Your task to perform on an android device: Search for sushi restaurants on Maps Image 0: 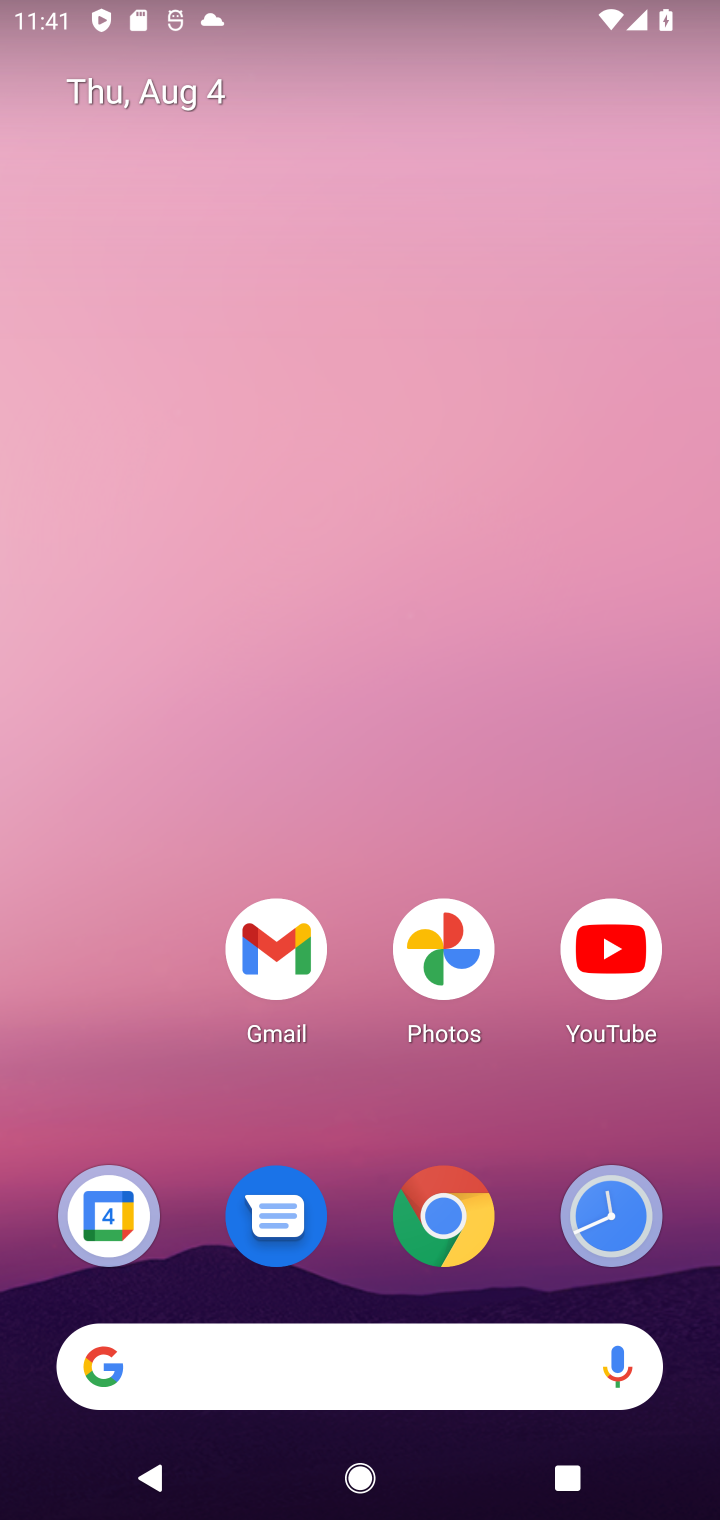
Step 0: drag from (312, 1365) to (366, 363)
Your task to perform on an android device: Search for sushi restaurants on Maps Image 1: 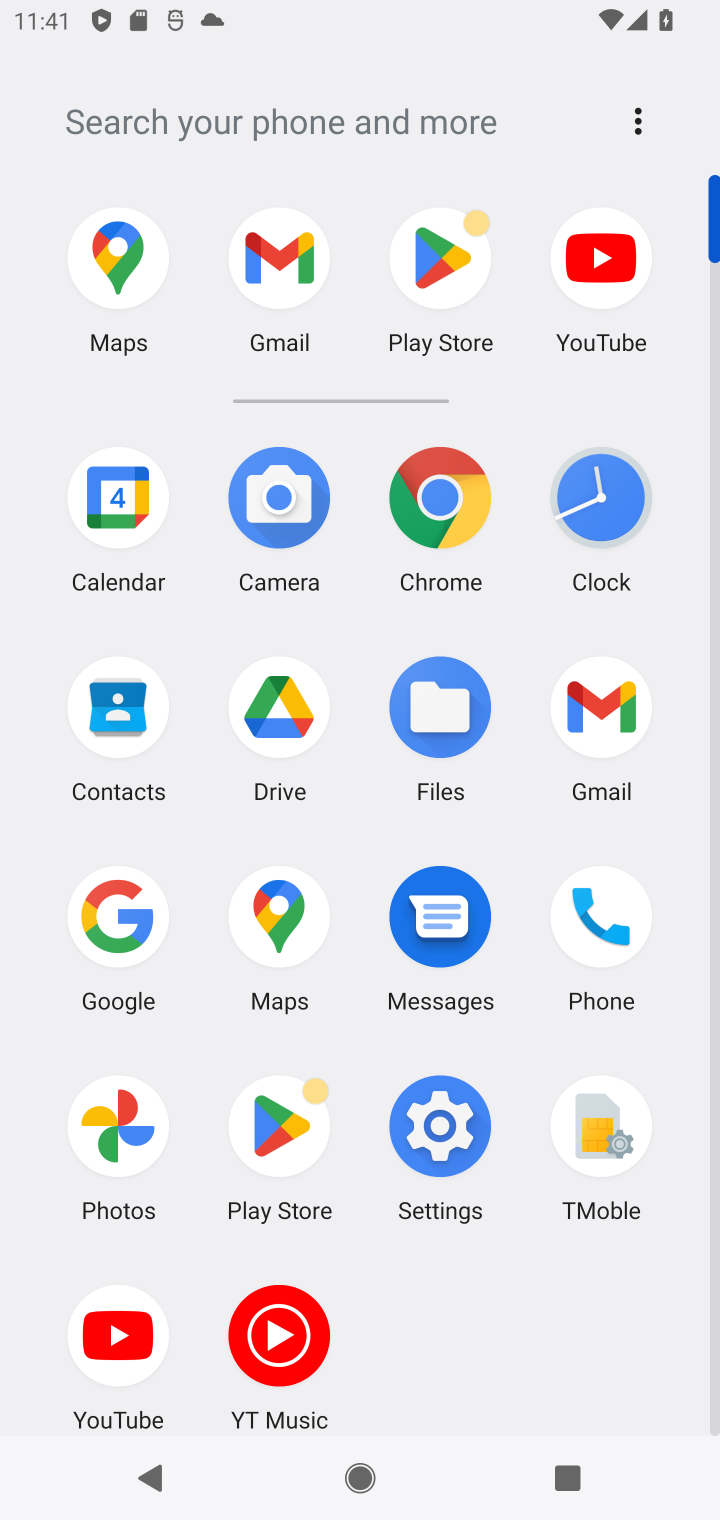
Step 1: click (279, 907)
Your task to perform on an android device: Search for sushi restaurants on Maps Image 2: 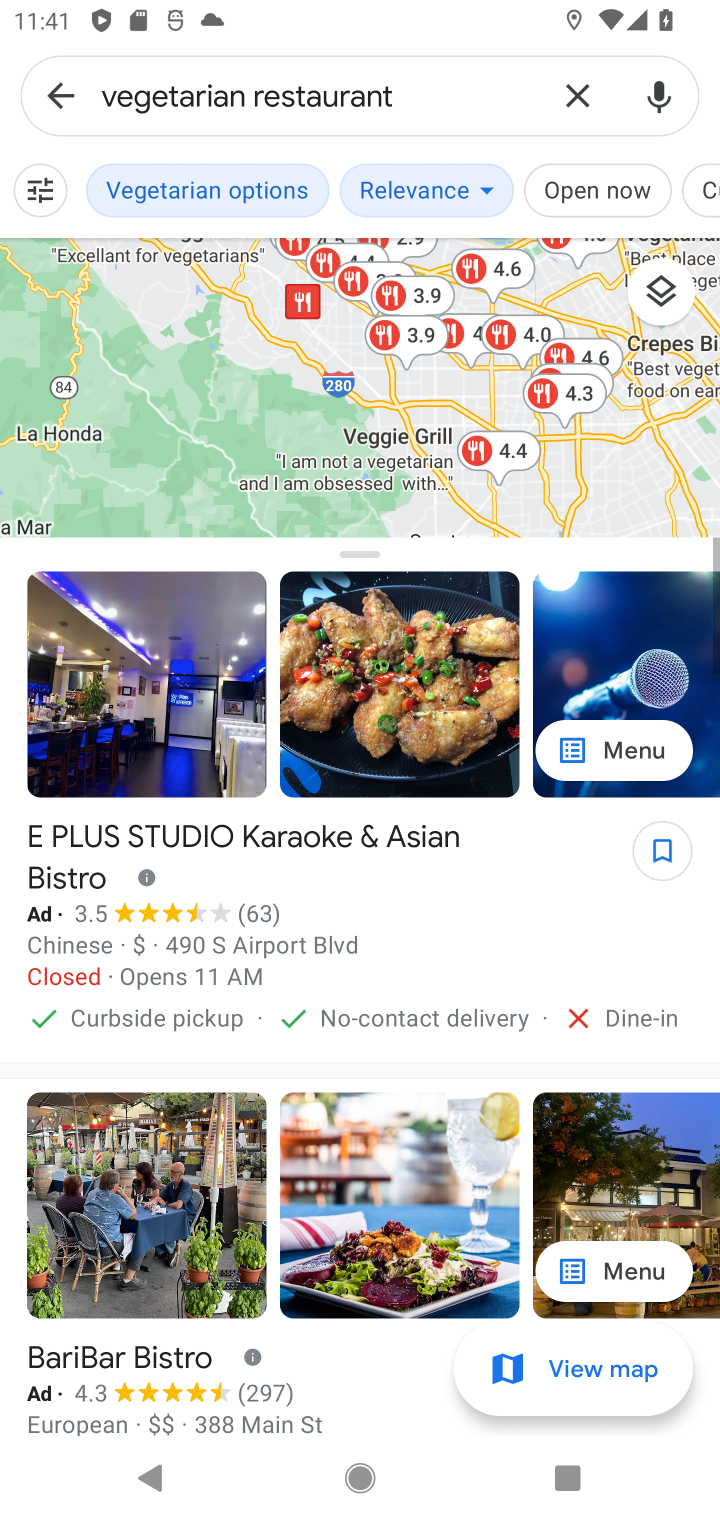
Step 2: click (577, 107)
Your task to perform on an android device: Search for sushi restaurants on Maps Image 3: 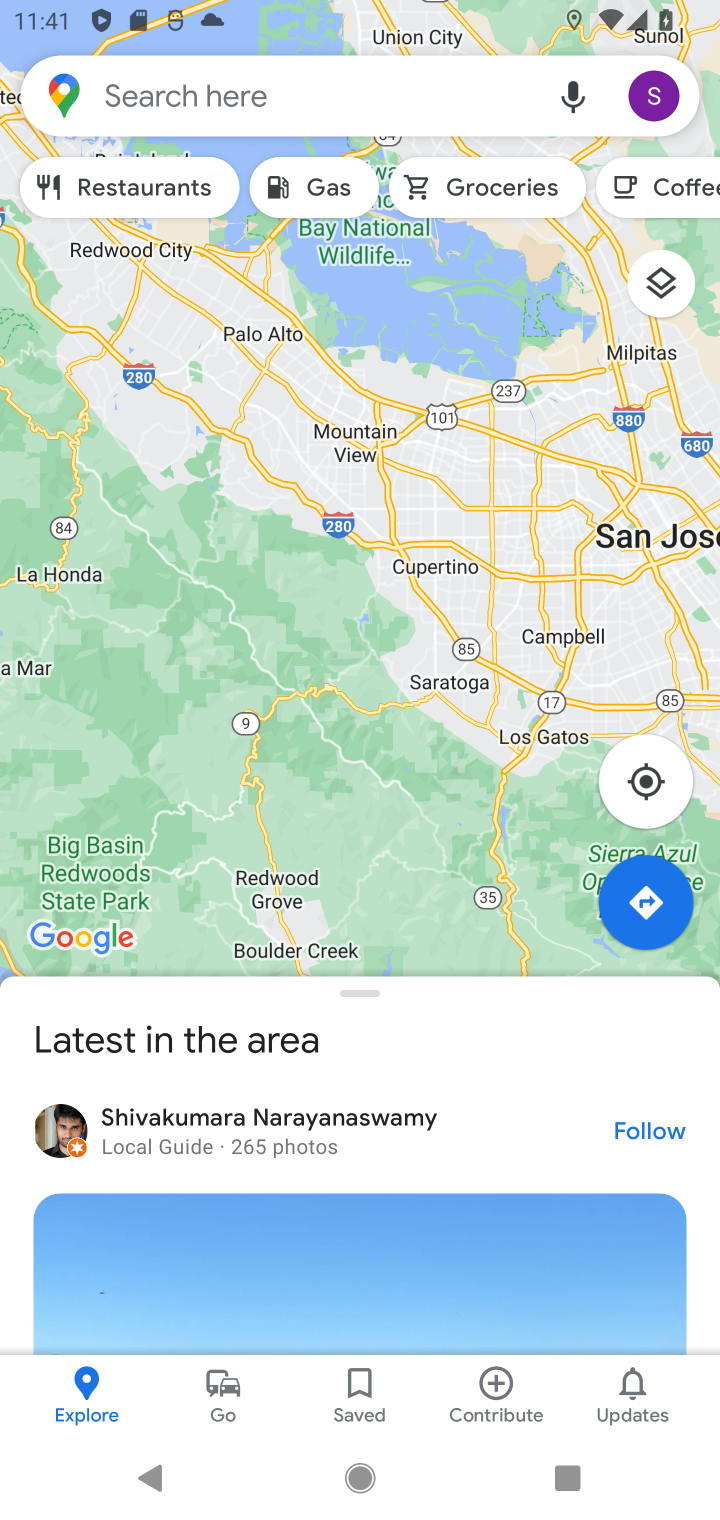
Step 3: click (336, 99)
Your task to perform on an android device: Search for sushi restaurants on Maps Image 4: 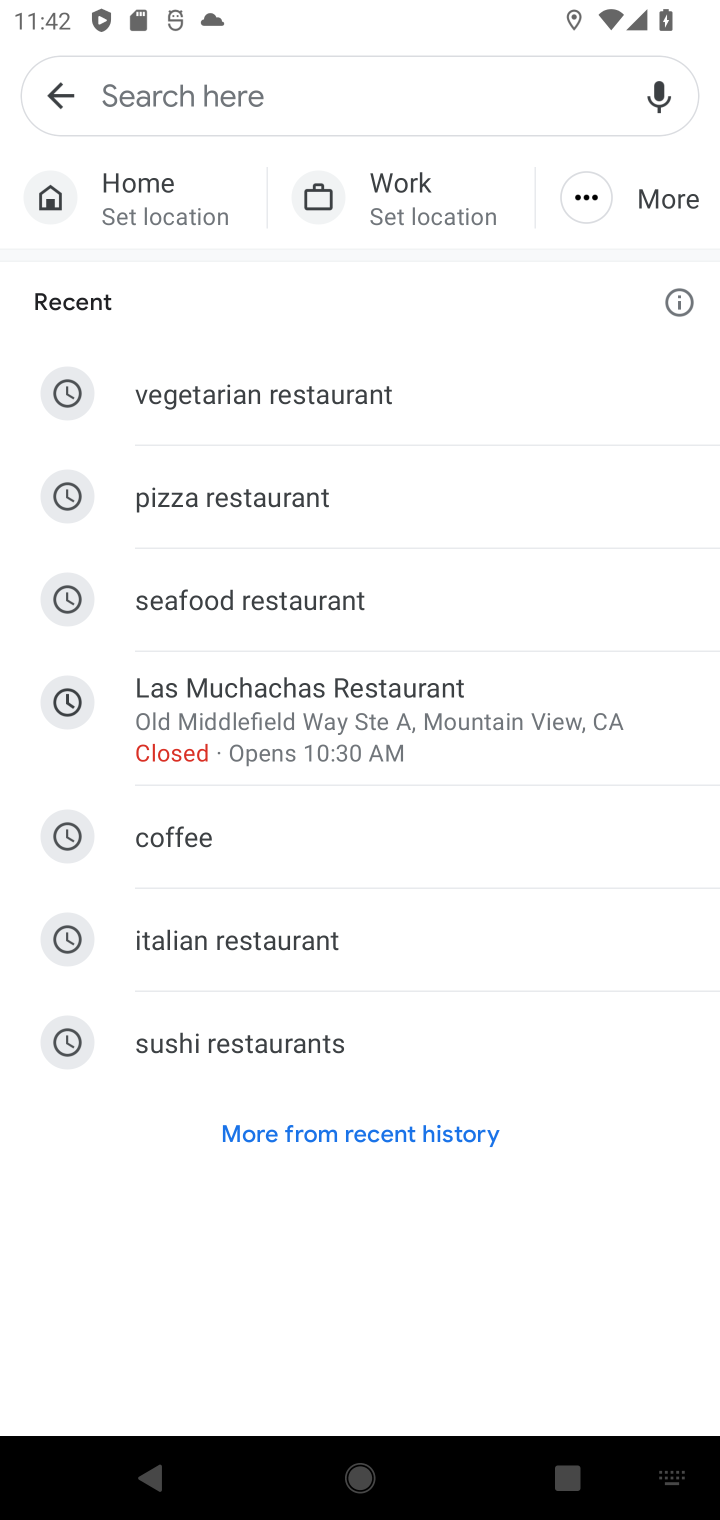
Step 4: type "sushi restaurants"
Your task to perform on an android device: Search for sushi restaurants on Maps Image 5: 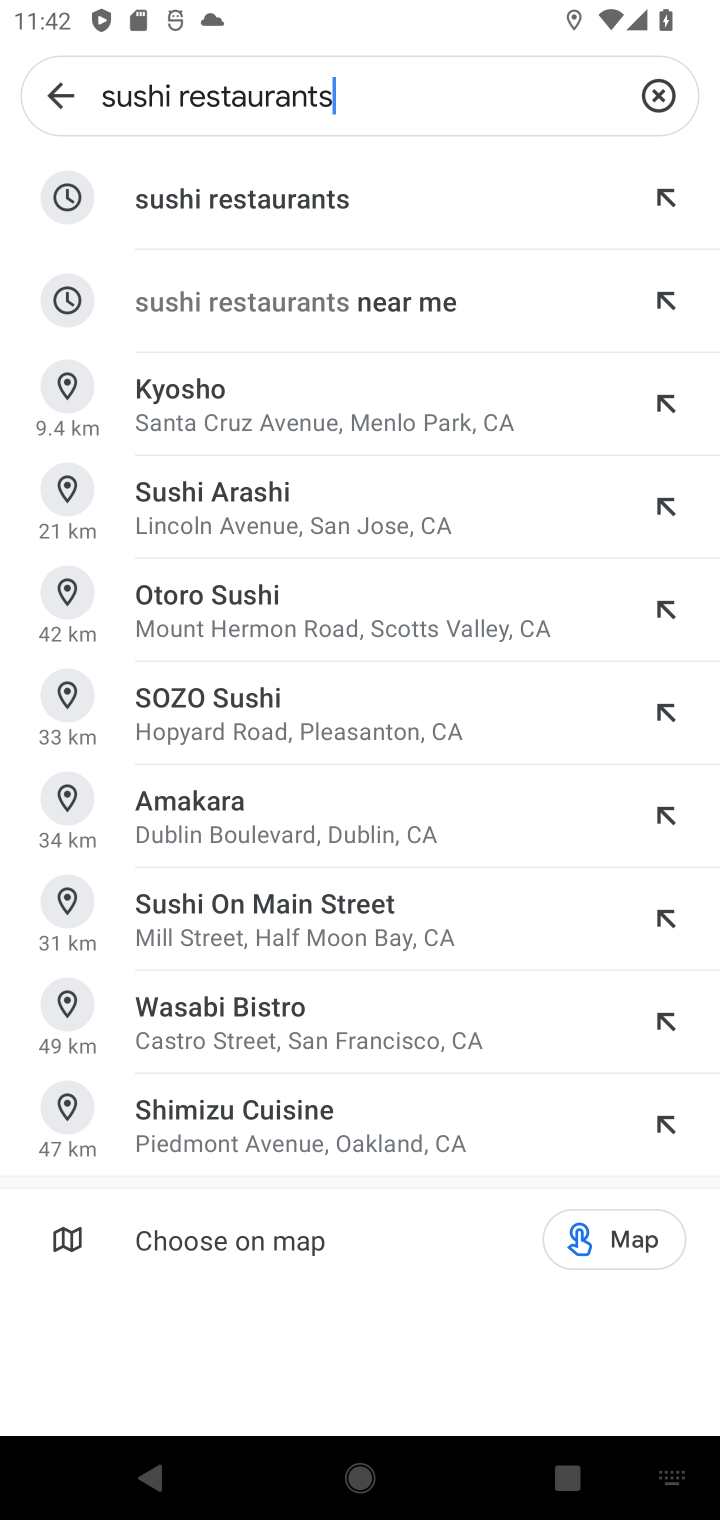
Step 5: click (246, 203)
Your task to perform on an android device: Search for sushi restaurants on Maps Image 6: 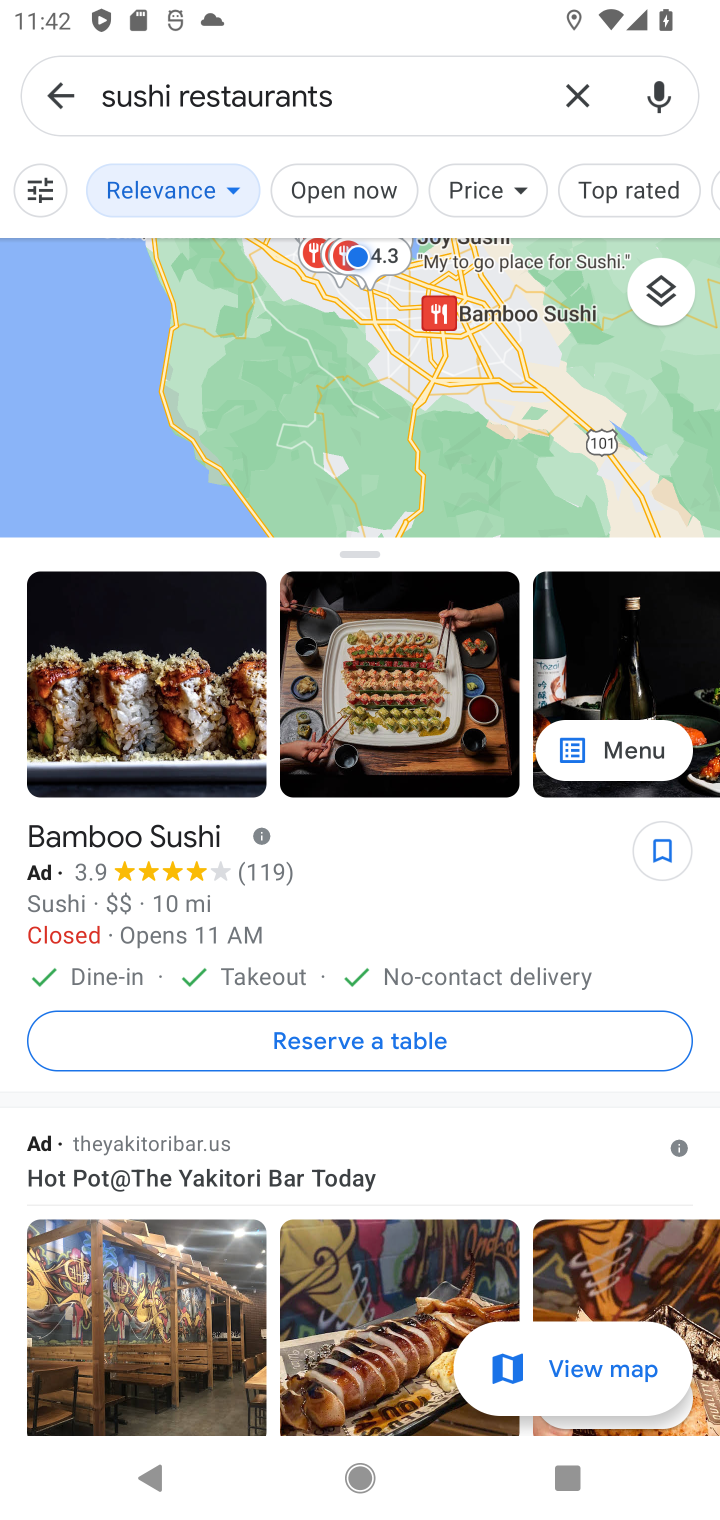
Step 6: task complete